Your task to perform on an android device: turn on the 24-hour format for clock Image 0: 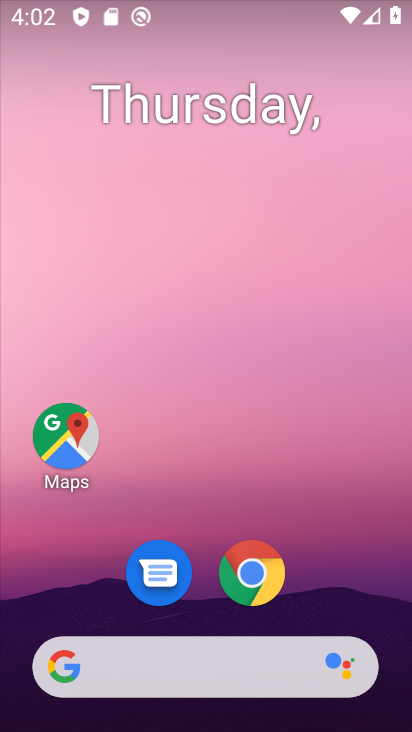
Step 0: drag from (384, 594) to (364, 119)
Your task to perform on an android device: turn on the 24-hour format for clock Image 1: 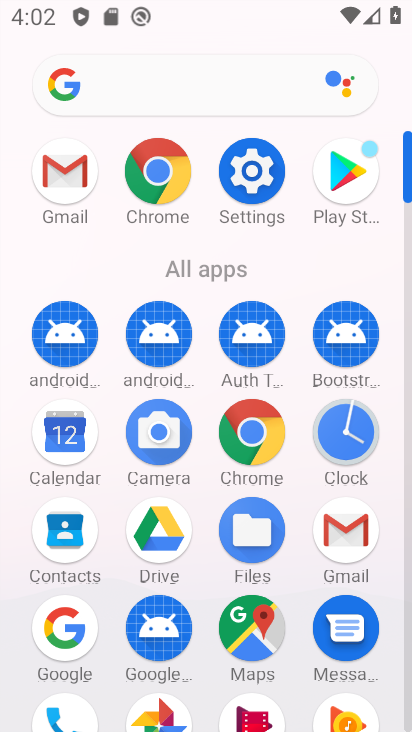
Step 1: click (344, 428)
Your task to perform on an android device: turn on the 24-hour format for clock Image 2: 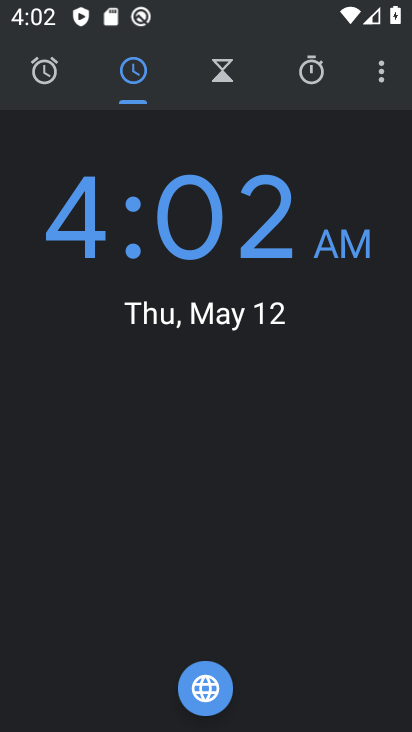
Step 2: click (381, 75)
Your task to perform on an android device: turn on the 24-hour format for clock Image 3: 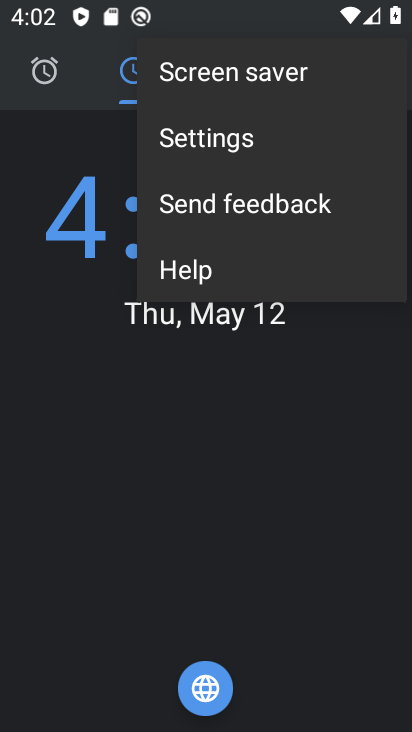
Step 3: click (208, 127)
Your task to perform on an android device: turn on the 24-hour format for clock Image 4: 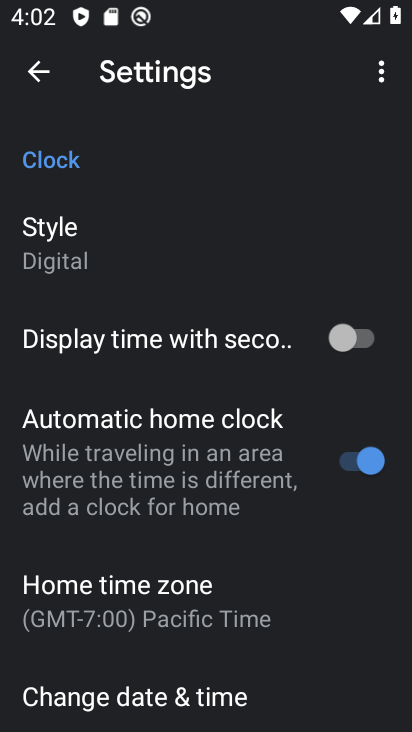
Step 4: drag from (227, 602) to (261, 0)
Your task to perform on an android device: turn on the 24-hour format for clock Image 5: 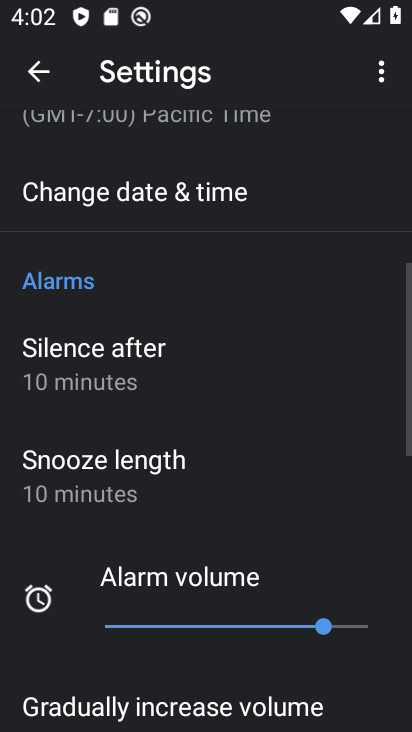
Step 5: click (159, 242)
Your task to perform on an android device: turn on the 24-hour format for clock Image 6: 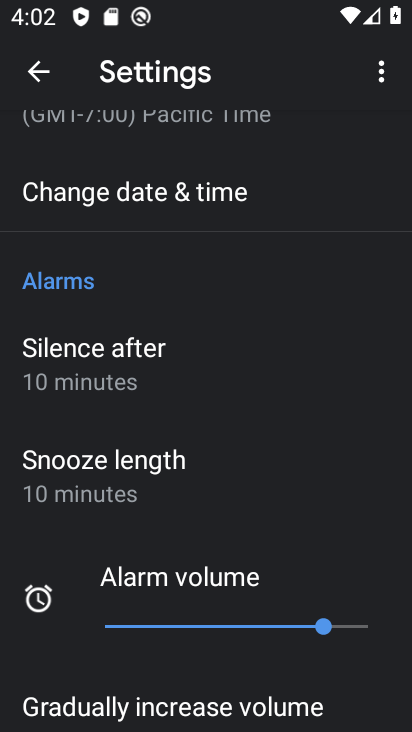
Step 6: click (128, 202)
Your task to perform on an android device: turn on the 24-hour format for clock Image 7: 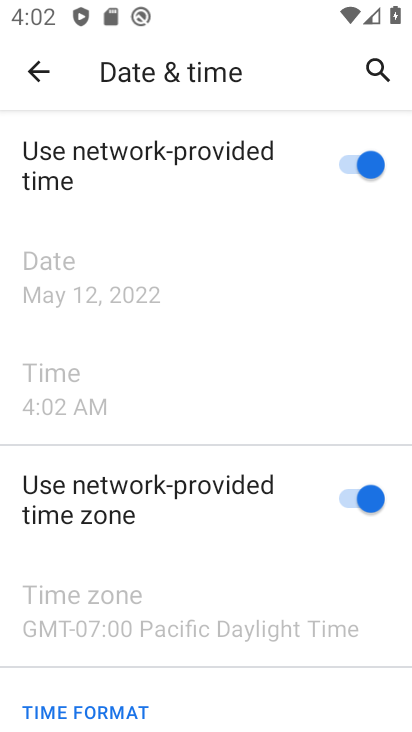
Step 7: drag from (234, 559) to (324, 89)
Your task to perform on an android device: turn on the 24-hour format for clock Image 8: 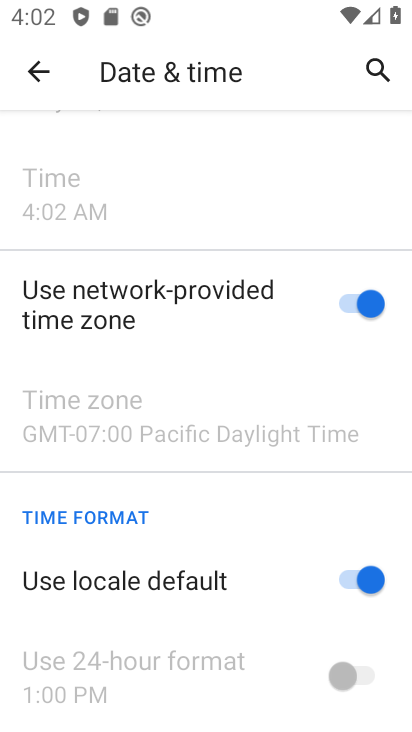
Step 8: click (347, 578)
Your task to perform on an android device: turn on the 24-hour format for clock Image 9: 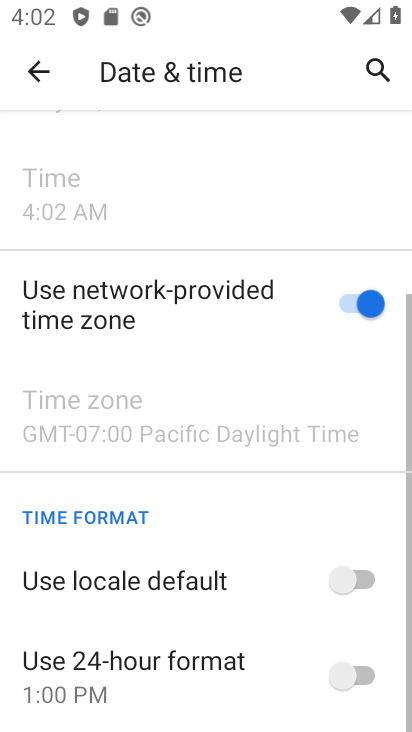
Step 9: click (367, 678)
Your task to perform on an android device: turn on the 24-hour format for clock Image 10: 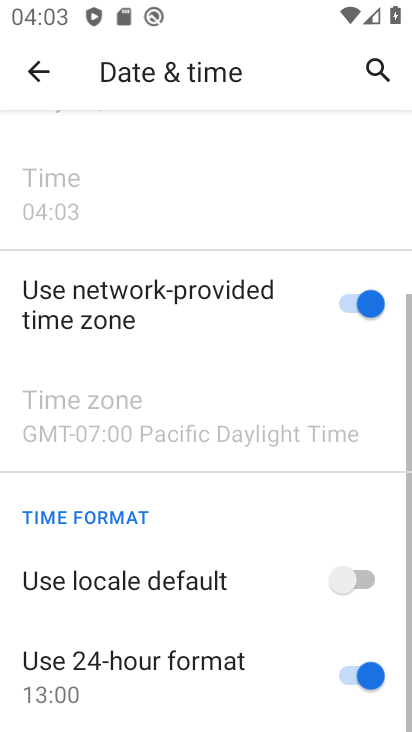
Step 10: task complete